Your task to perform on an android device: change the clock style Image 0: 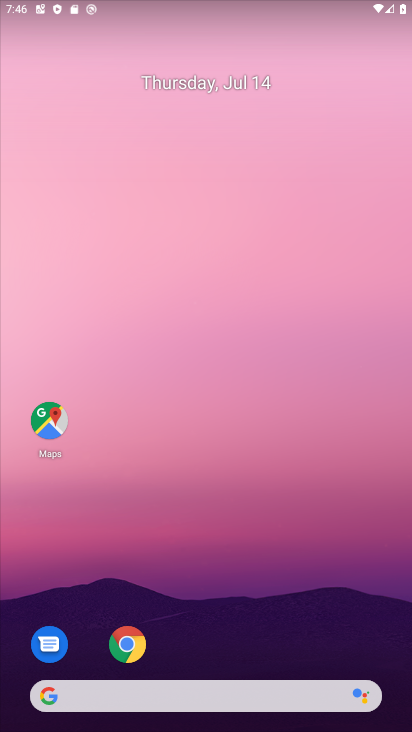
Step 0: drag from (226, 700) to (399, 141)
Your task to perform on an android device: change the clock style Image 1: 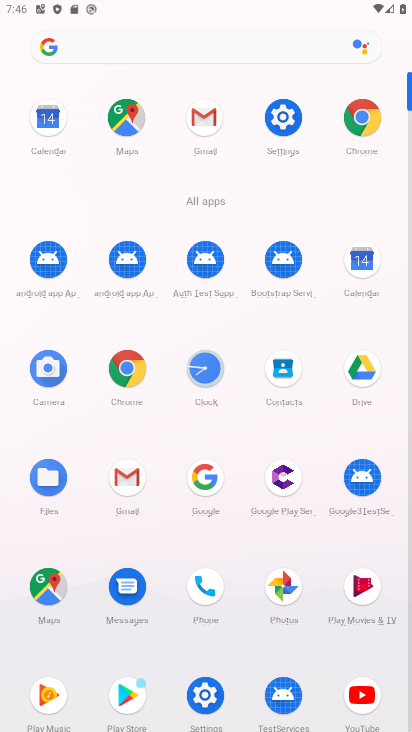
Step 1: click (206, 363)
Your task to perform on an android device: change the clock style Image 2: 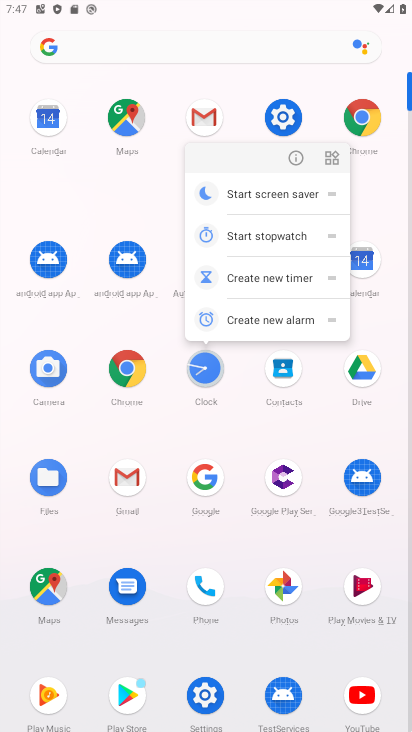
Step 2: click (211, 367)
Your task to perform on an android device: change the clock style Image 3: 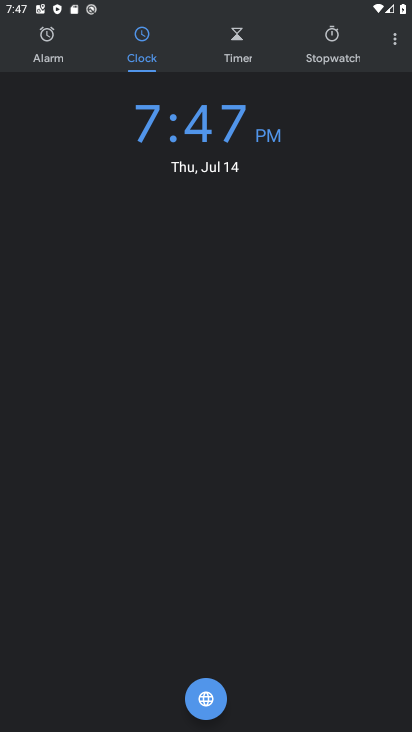
Step 3: click (399, 40)
Your task to perform on an android device: change the clock style Image 4: 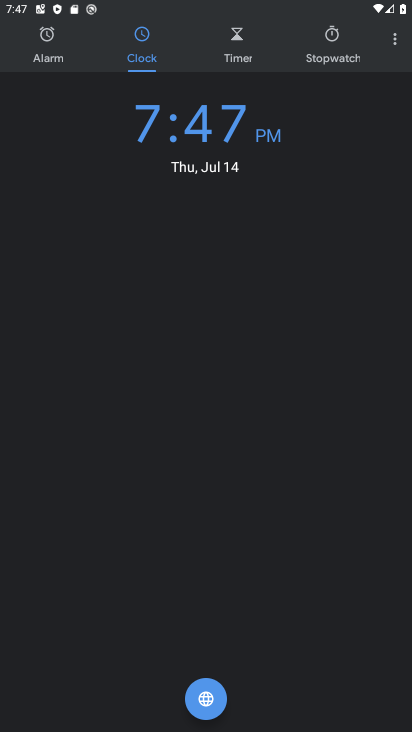
Step 4: click (394, 41)
Your task to perform on an android device: change the clock style Image 5: 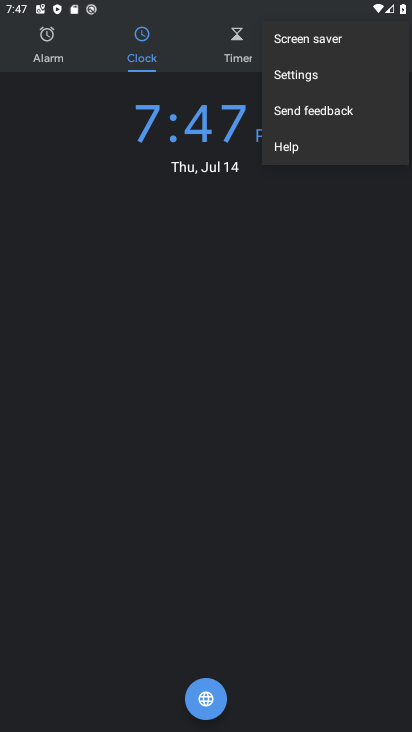
Step 5: click (331, 77)
Your task to perform on an android device: change the clock style Image 6: 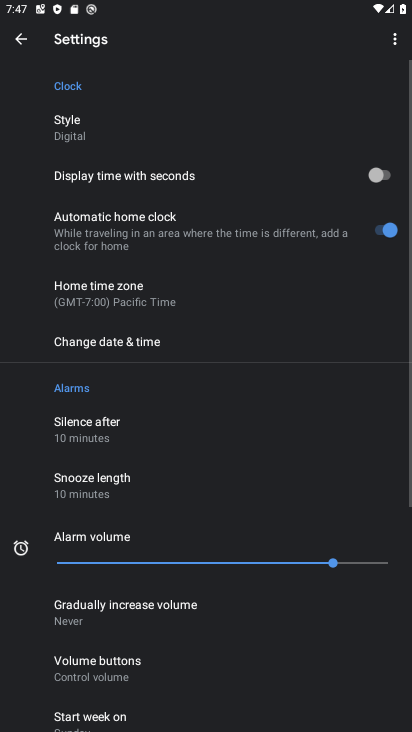
Step 6: click (71, 125)
Your task to perform on an android device: change the clock style Image 7: 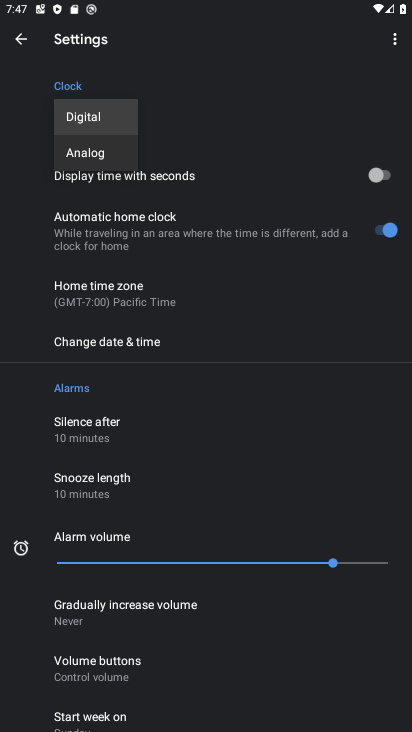
Step 7: click (107, 160)
Your task to perform on an android device: change the clock style Image 8: 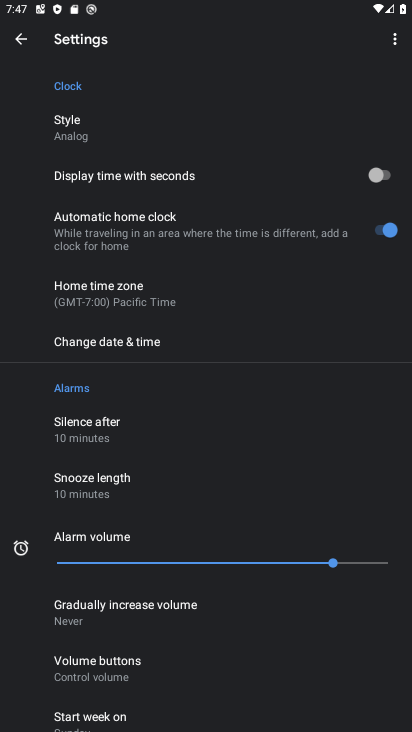
Step 8: task complete